Your task to perform on an android device: Go to Google Image 0: 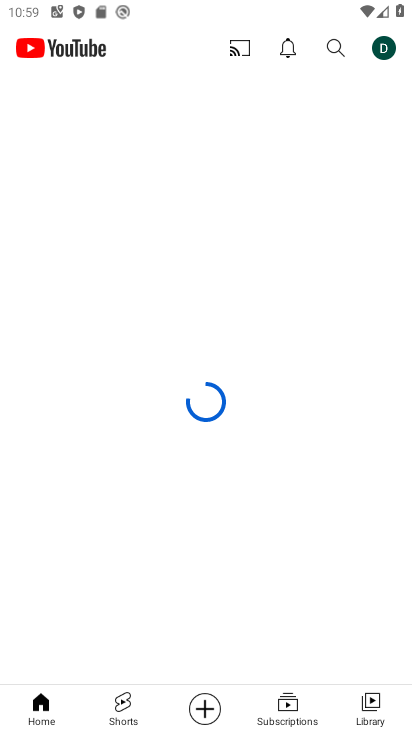
Step 0: drag from (223, 596) to (222, 100)
Your task to perform on an android device: Go to Google Image 1: 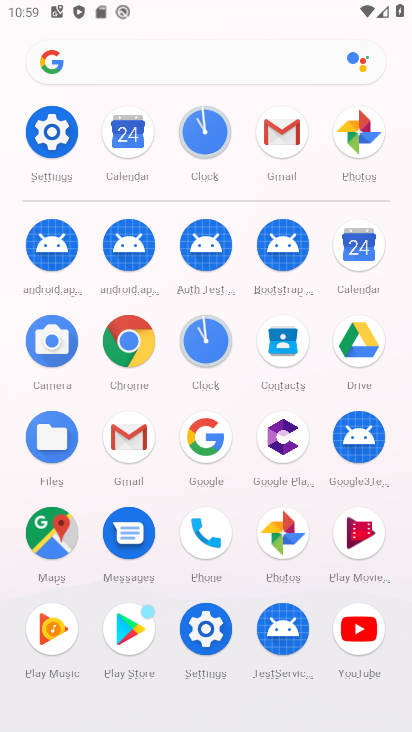
Step 1: click (186, 420)
Your task to perform on an android device: Go to Google Image 2: 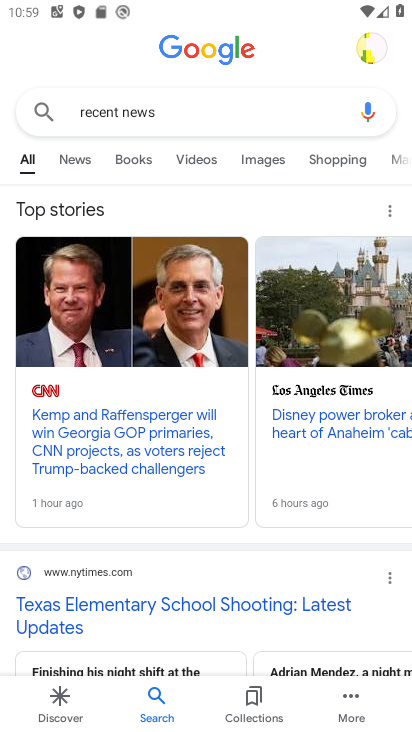
Step 2: task complete